Your task to perform on an android device: Search for vegetarian restaurants on Maps Image 0: 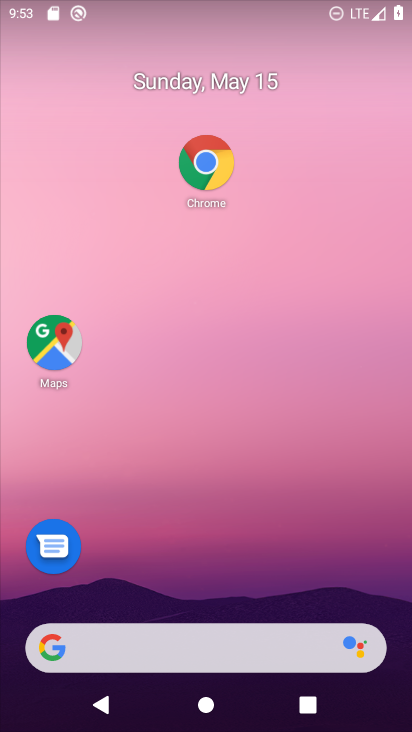
Step 0: click (50, 337)
Your task to perform on an android device: Search for vegetarian restaurants on Maps Image 1: 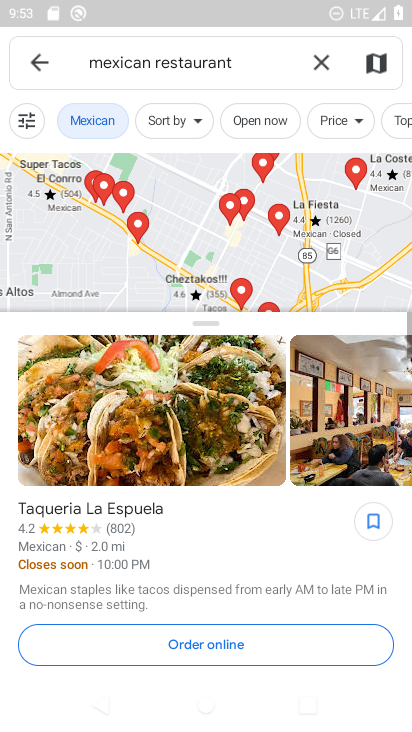
Step 1: click (320, 55)
Your task to perform on an android device: Search for vegetarian restaurants on Maps Image 2: 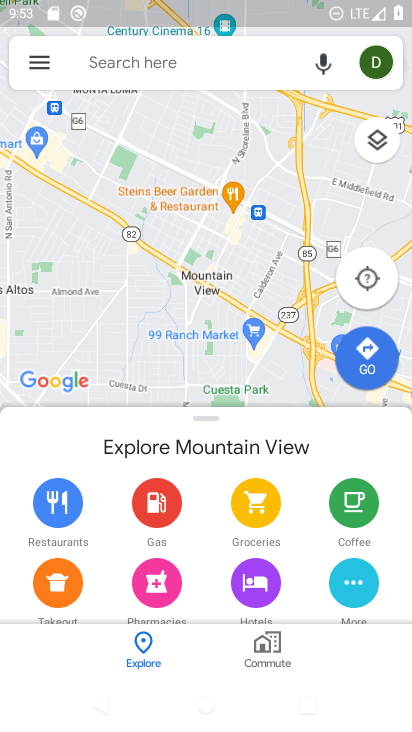
Step 2: click (162, 57)
Your task to perform on an android device: Search for vegetarian restaurants on Maps Image 3: 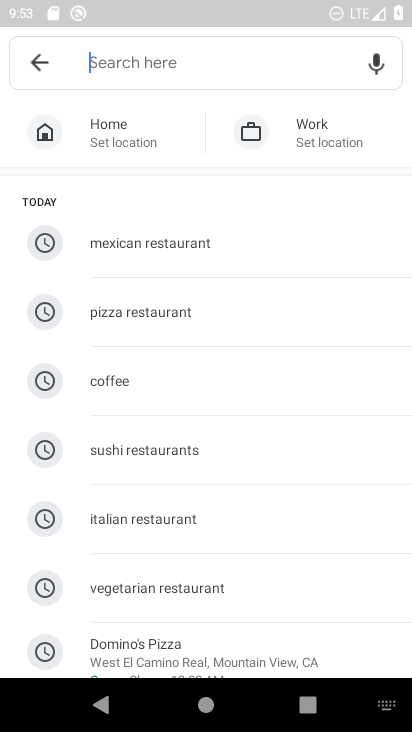
Step 3: click (180, 587)
Your task to perform on an android device: Search for vegetarian restaurants on Maps Image 4: 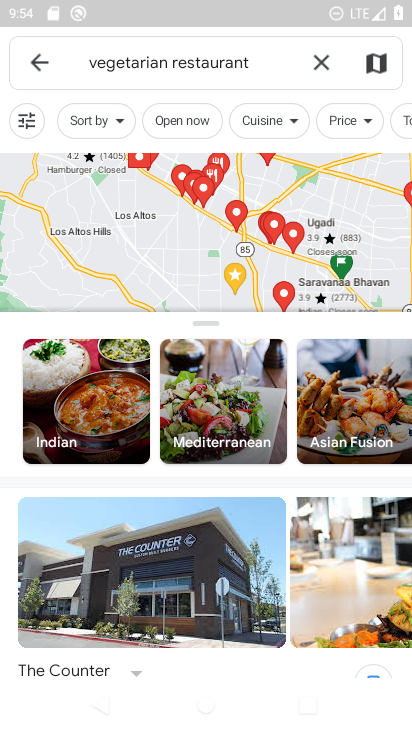
Step 4: task complete